Your task to perform on an android device: Open Youtube and go to "Your channel" Image 0: 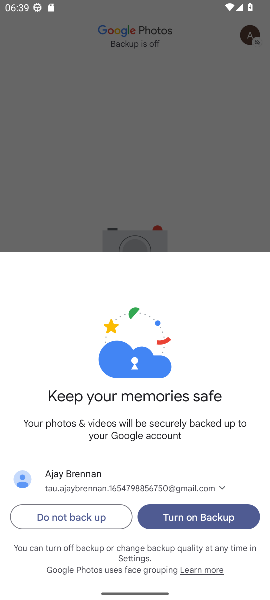
Step 0: press home button
Your task to perform on an android device: Open Youtube and go to "Your channel" Image 1: 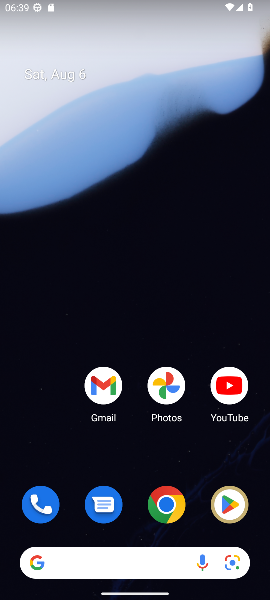
Step 1: click (230, 387)
Your task to perform on an android device: Open Youtube and go to "Your channel" Image 2: 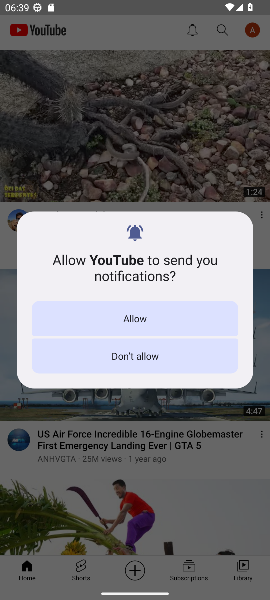
Step 2: click (139, 315)
Your task to perform on an android device: Open Youtube and go to "Your channel" Image 3: 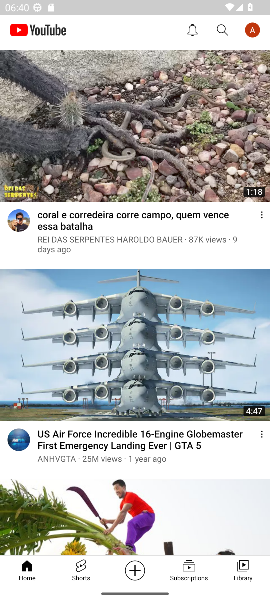
Step 3: click (252, 29)
Your task to perform on an android device: Open Youtube and go to "Your channel" Image 4: 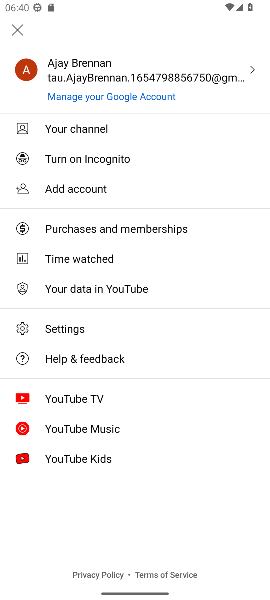
Step 4: click (94, 131)
Your task to perform on an android device: Open Youtube and go to "Your channel" Image 5: 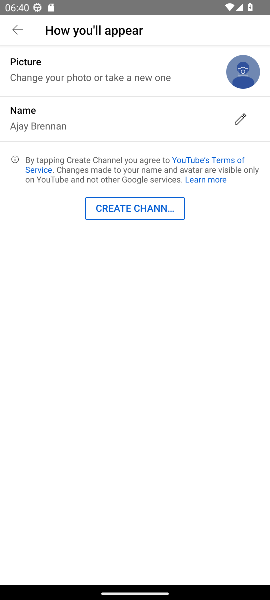
Step 5: task complete